Your task to perform on an android device: Search for vegetarian restaurants on Maps Image 0: 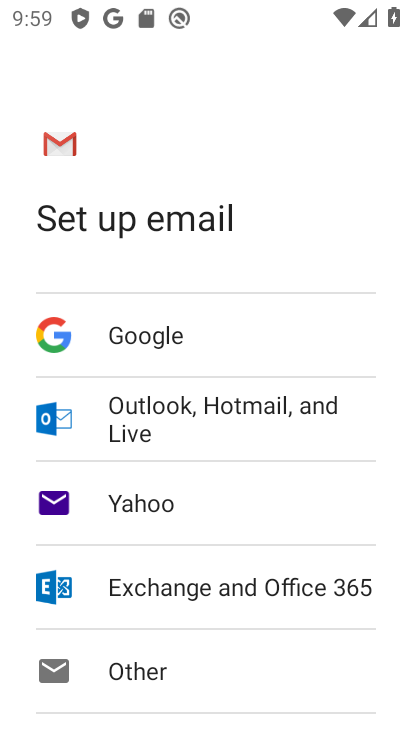
Step 0: press home button
Your task to perform on an android device: Search for vegetarian restaurants on Maps Image 1: 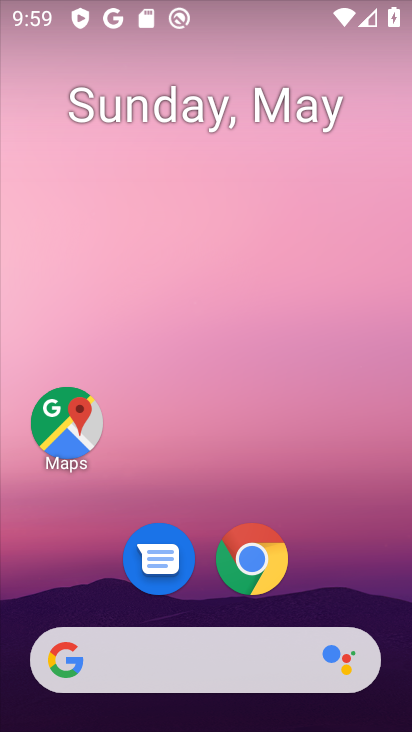
Step 1: click (64, 428)
Your task to perform on an android device: Search for vegetarian restaurants on Maps Image 2: 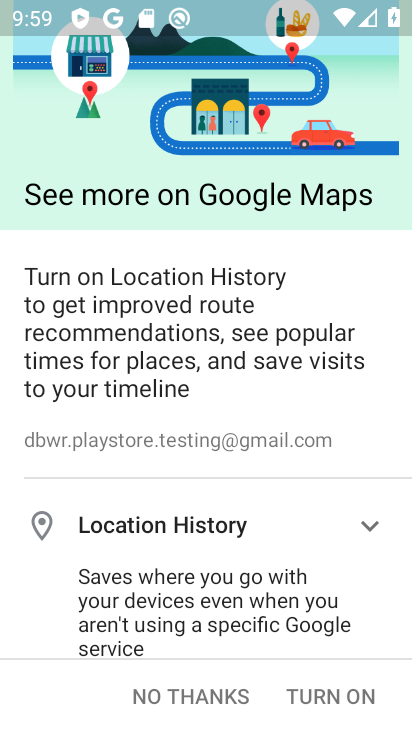
Step 2: click (195, 685)
Your task to perform on an android device: Search for vegetarian restaurants on Maps Image 3: 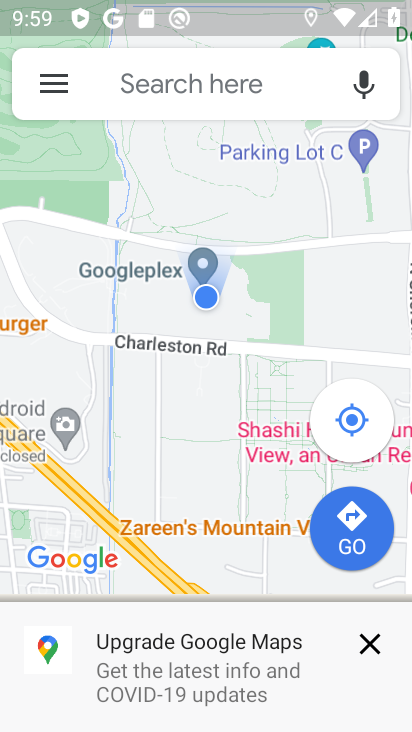
Step 3: click (174, 110)
Your task to perform on an android device: Search for vegetarian restaurants on Maps Image 4: 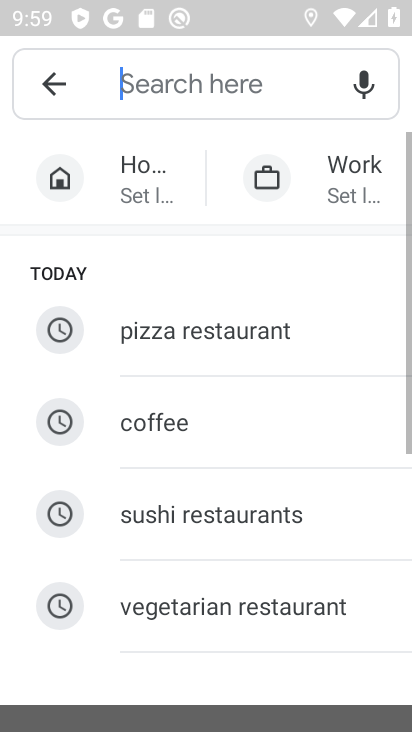
Step 4: click (208, 604)
Your task to perform on an android device: Search for vegetarian restaurants on Maps Image 5: 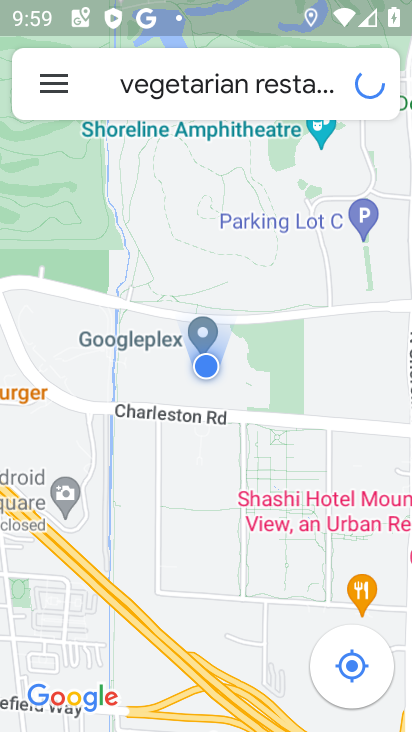
Step 5: task complete